Your task to perform on an android device: toggle notification dots Image 0: 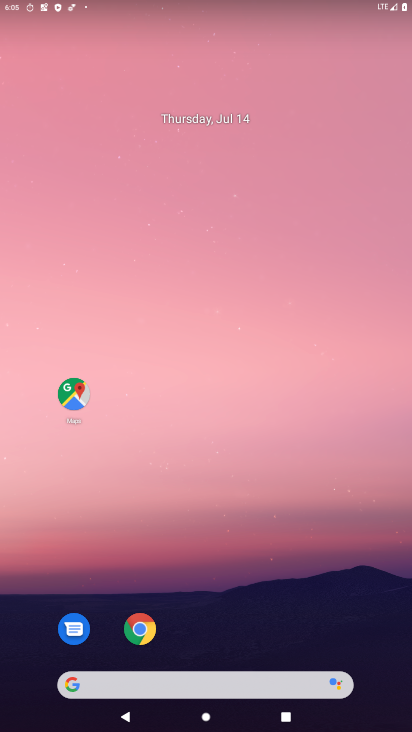
Step 0: drag from (290, 693) to (289, 25)
Your task to perform on an android device: toggle notification dots Image 1: 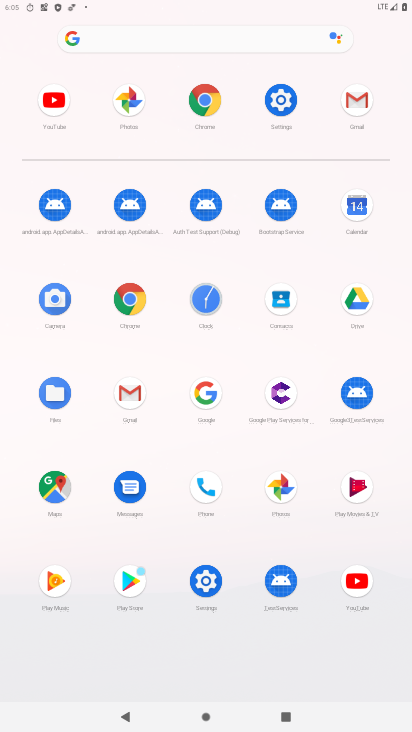
Step 1: click (272, 98)
Your task to perform on an android device: toggle notification dots Image 2: 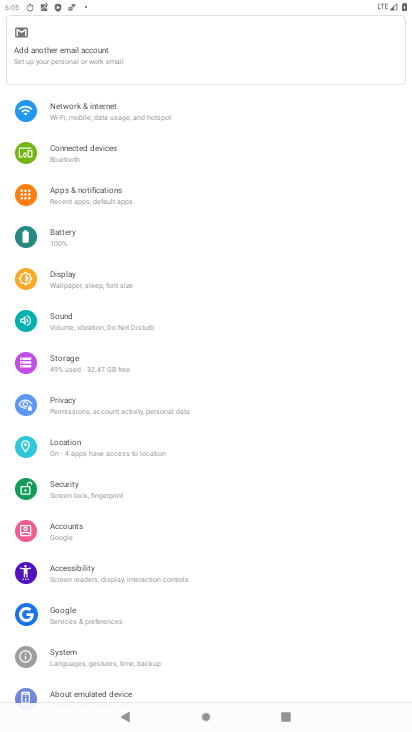
Step 2: click (122, 195)
Your task to perform on an android device: toggle notification dots Image 3: 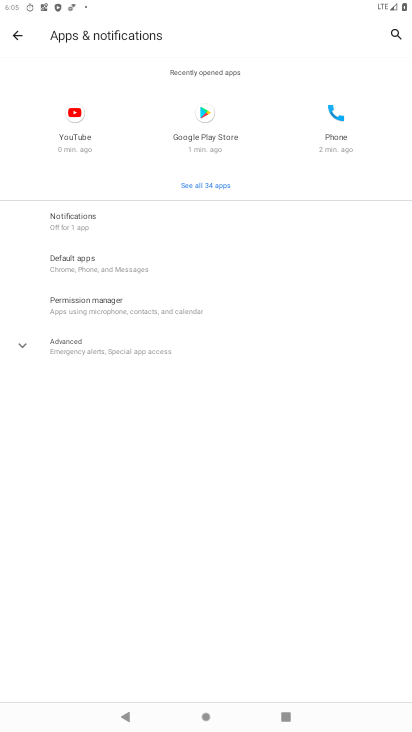
Step 3: click (98, 220)
Your task to perform on an android device: toggle notification dots Image 4: 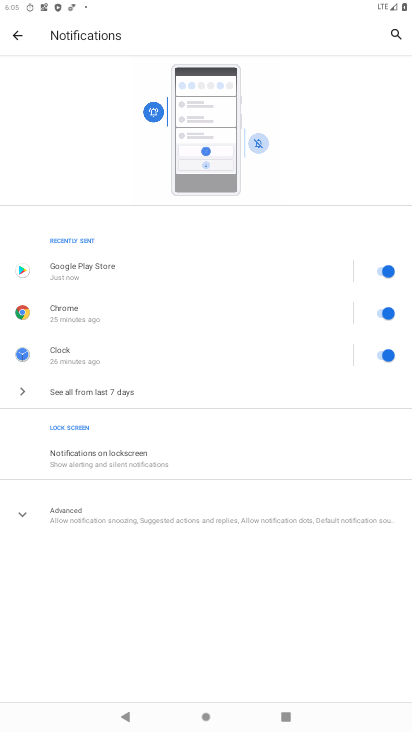
Step 4: click (122, 521)
Your task to perform on an android device: toggle notification dots Image 5: 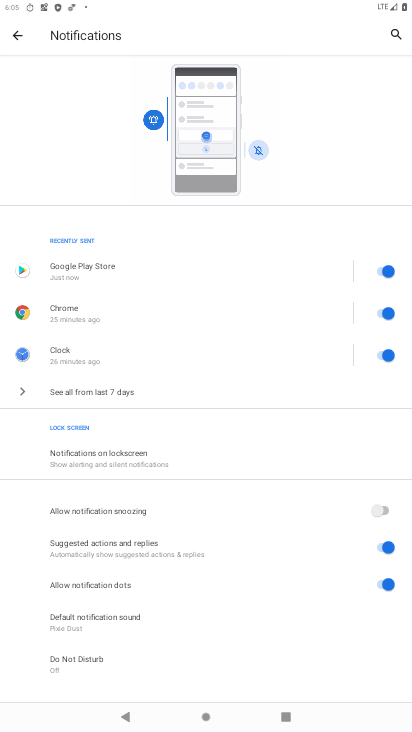
Step 5: click (379, 587)
Your task to perform on an android device: toggle notification dots Image 6: 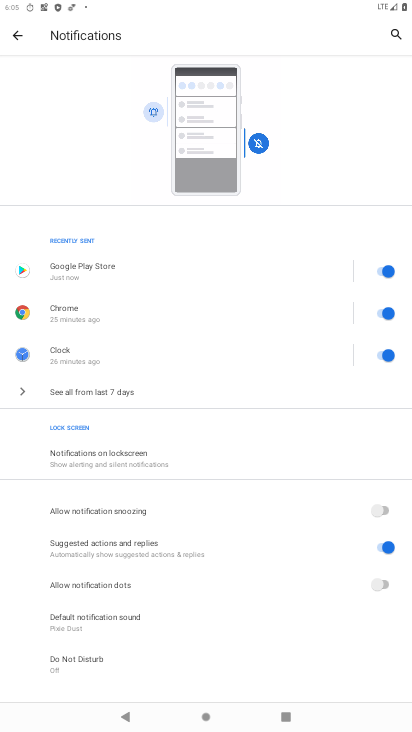
Step 6: task complete